Your task to perform on an android device: open app "Microsoft Outlook" Image 0: 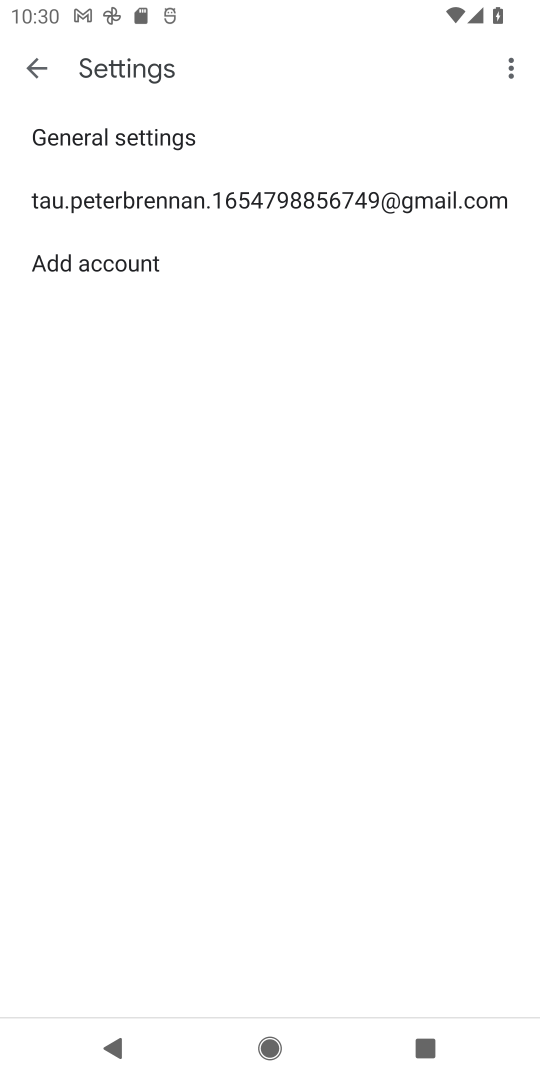
Step 0: press home button
Your task to perform on an android device: open app "Microsoft Outlook" Image 1: 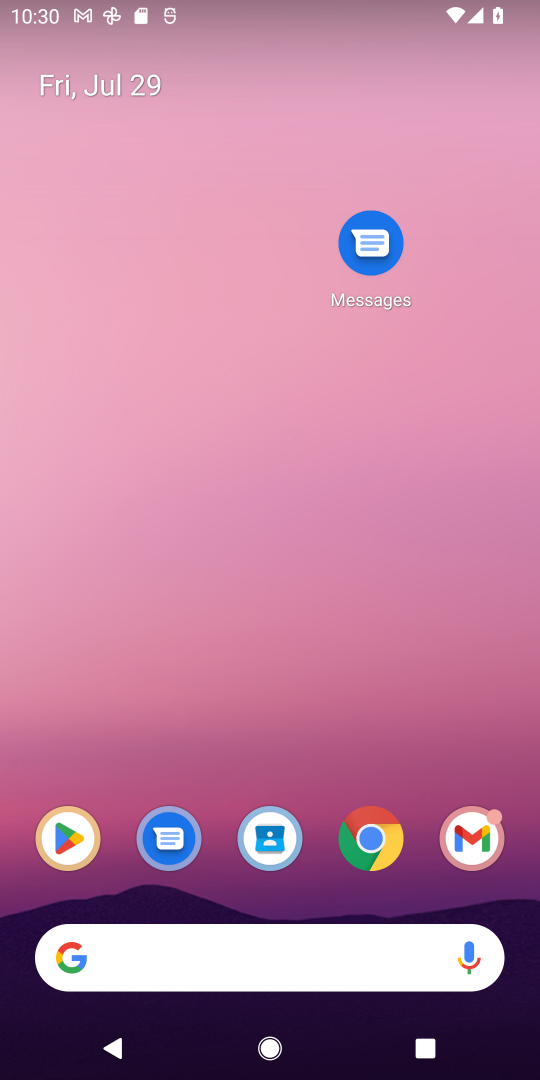
Step 1: click (73, 854)
Your task to perform on an android device: open app "Microsoft Outlook" Image 2: 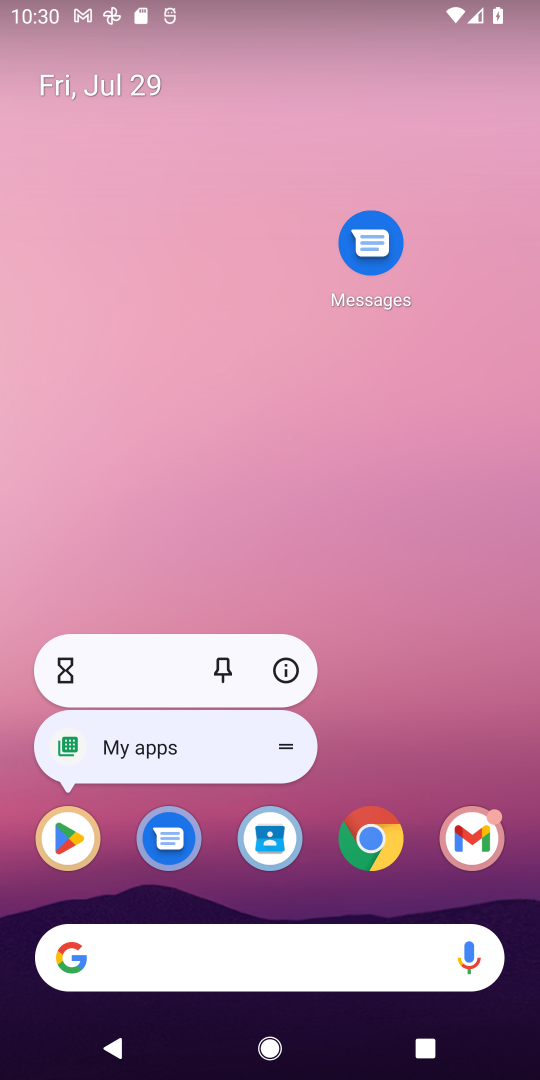
Step 2: click (64, 839)
Your task to perform on an android device: open app "Microsoft Outlook" Image 3: 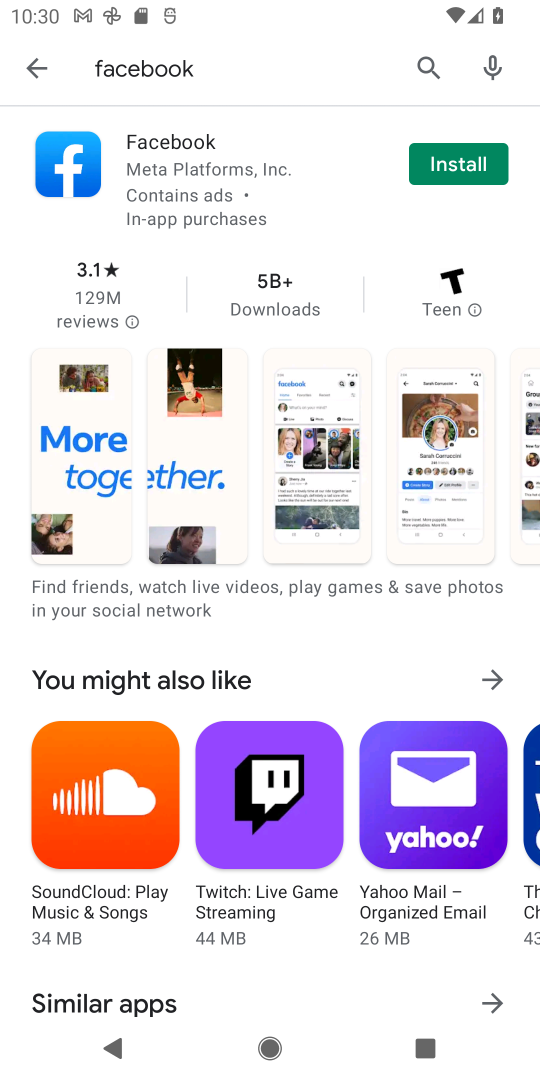
Step 3: click (176, 68)
Your task to perform on an android device: open app "Microsoft Outlook" Image 4: 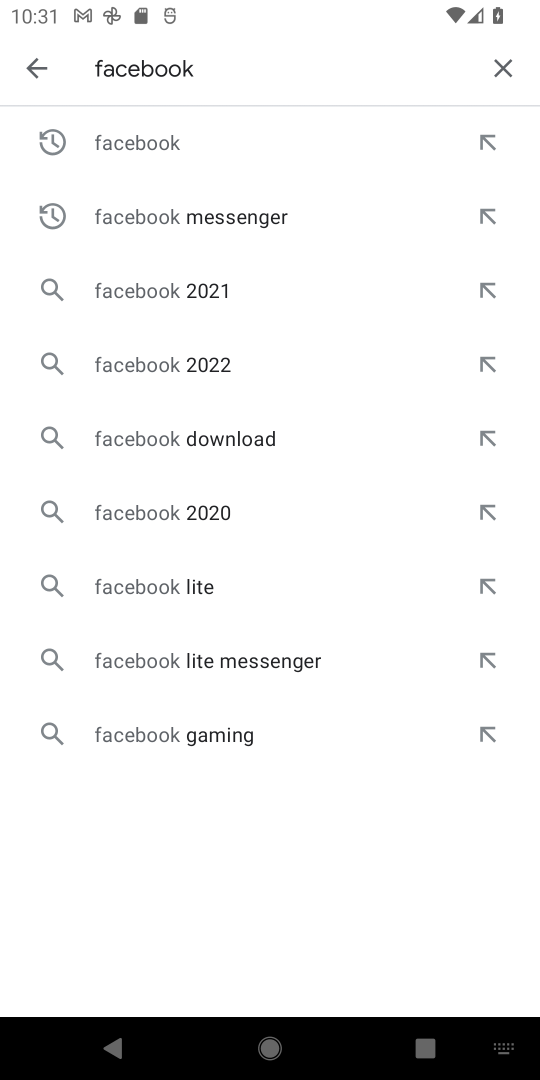
Step 4: click (499, 66)
Your task to perform on an android device: open app "Microsoft Outlook" Image 5: 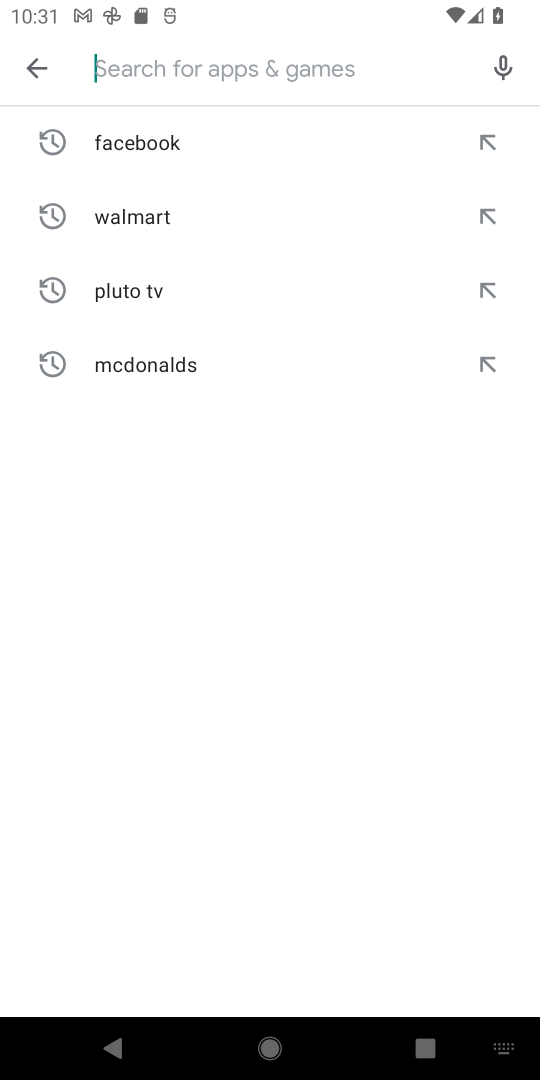
Step 5: type "microsoft Outlook"
Your task to perform on an android device: open app "Microsoft Outlook" Image 6: 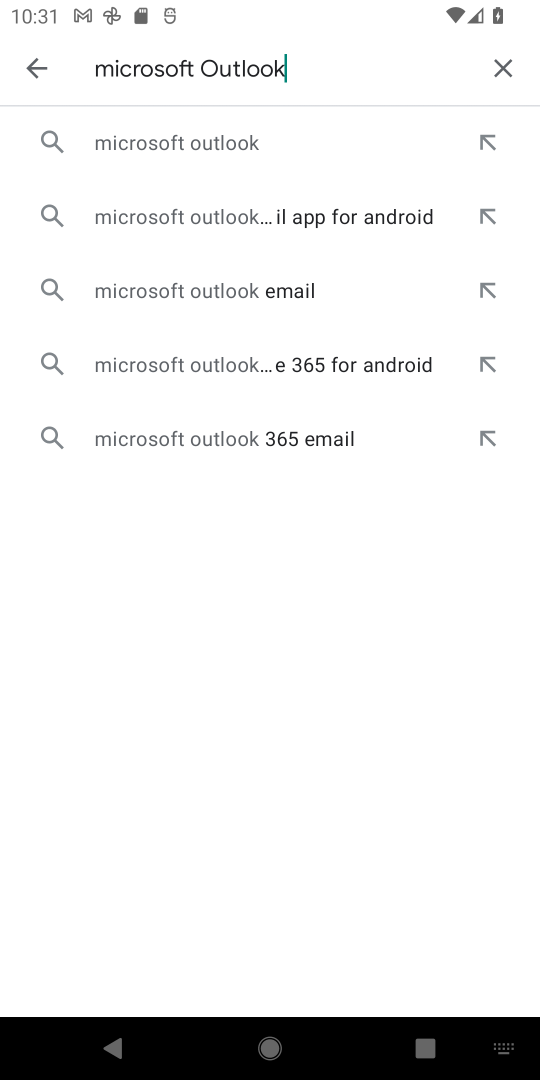
Step 6: click (248, 134)
Your task to perform on an android device: open app "Microsoft Outlook" Image 7: 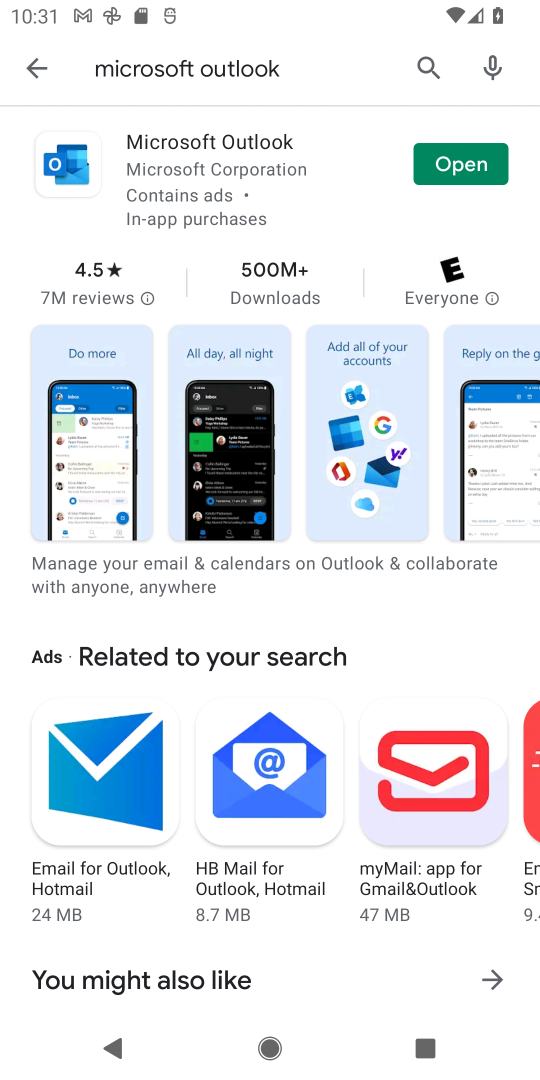
Step 7: click (443, 166)
Your task to perform on an android device: open app "Microsoft Outlook" Image 8: 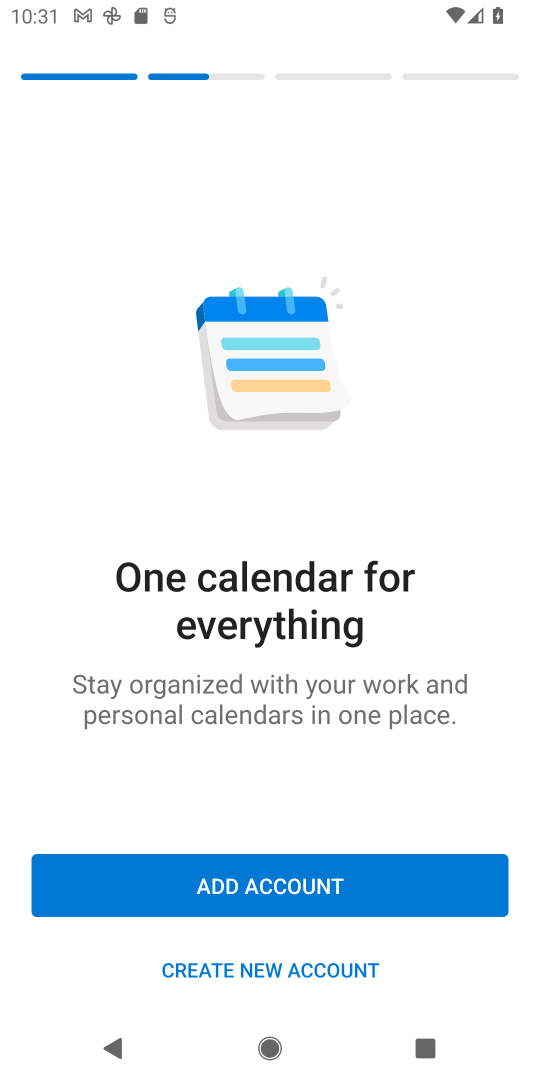
Step 8: task complete